Your task to perform on an android device: Go to Maps Image 0: 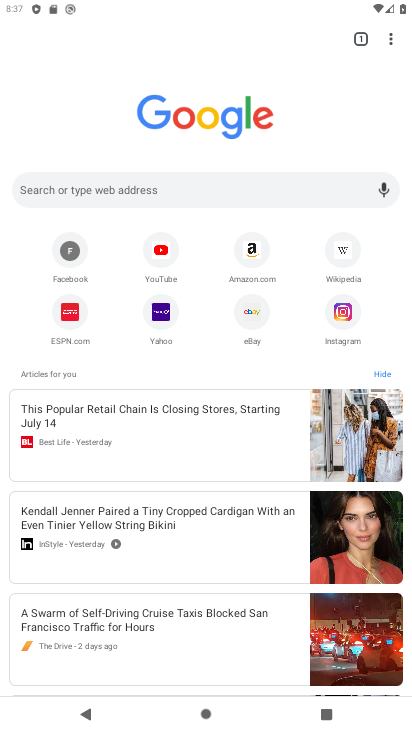
Step 0: press home button
Your task to perform on an android device: Go to Maps Image 1: 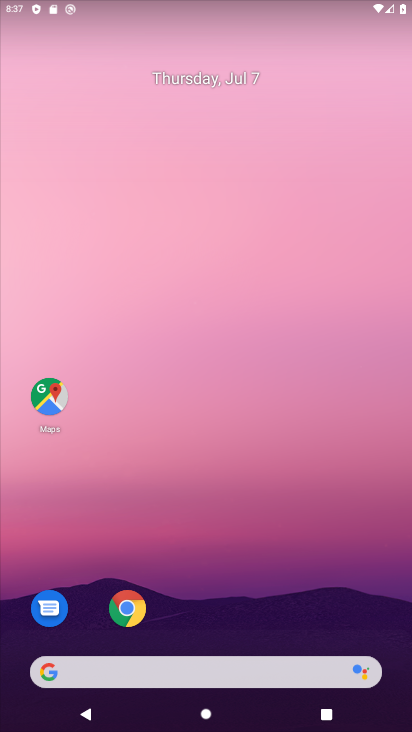
Step 1: click (52, 399)
Your task to perform on an android device: Go to Maps Image 2: 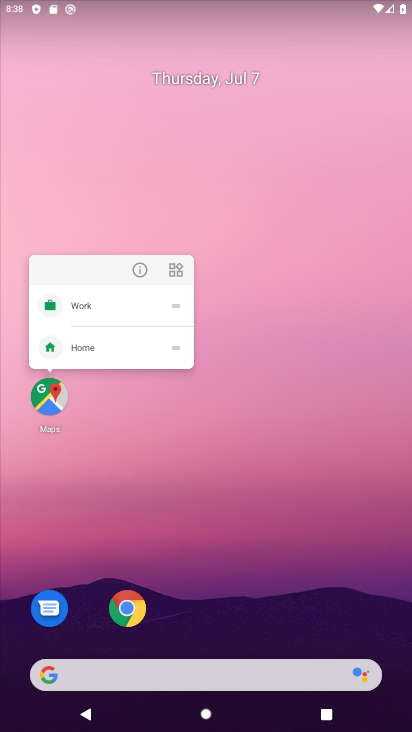
Step 2: click (48, 405)
Your task to perform on an android device: Go to Maps Image 3: 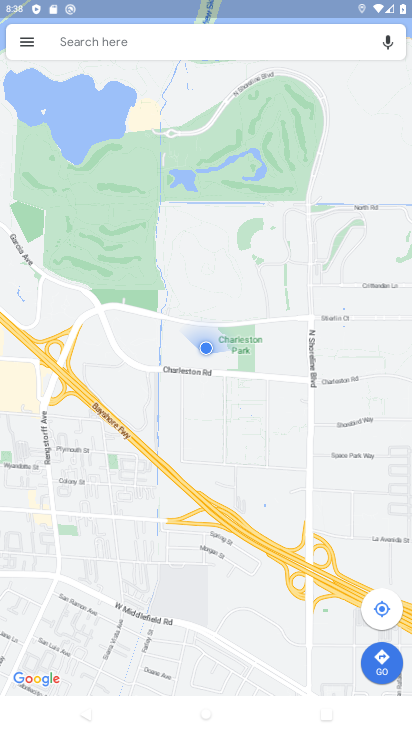
Step 3: task complete